Your task to perform on an android device: Open Google Chrome and click the shortcut for Amazon.com Image 0: 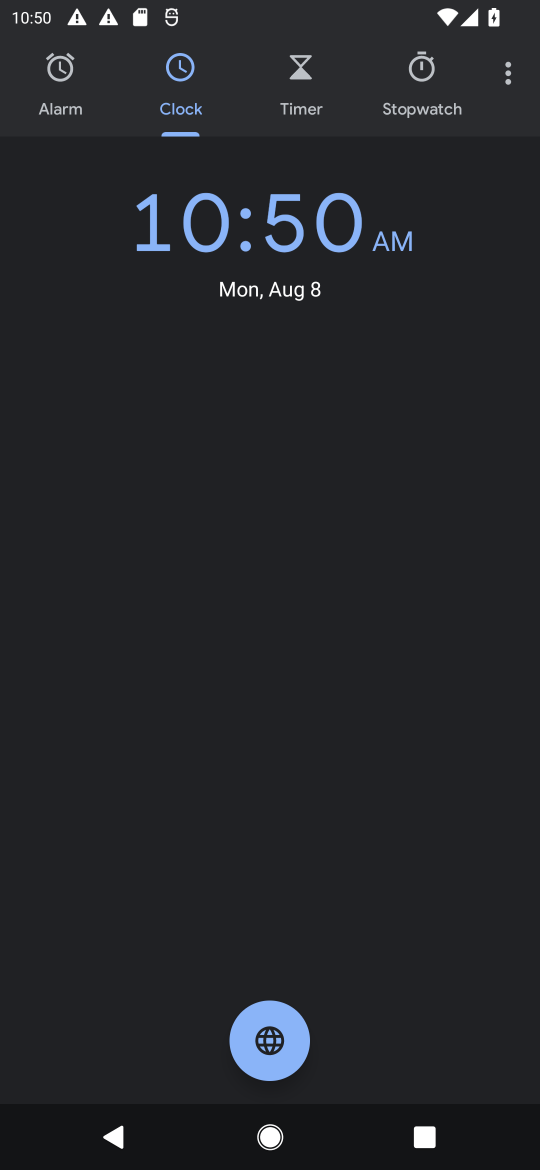
Step 0: press home button
Your task to perform on an android device: Open Google Chrome and click the shortcut for Amazon.com Image 1: 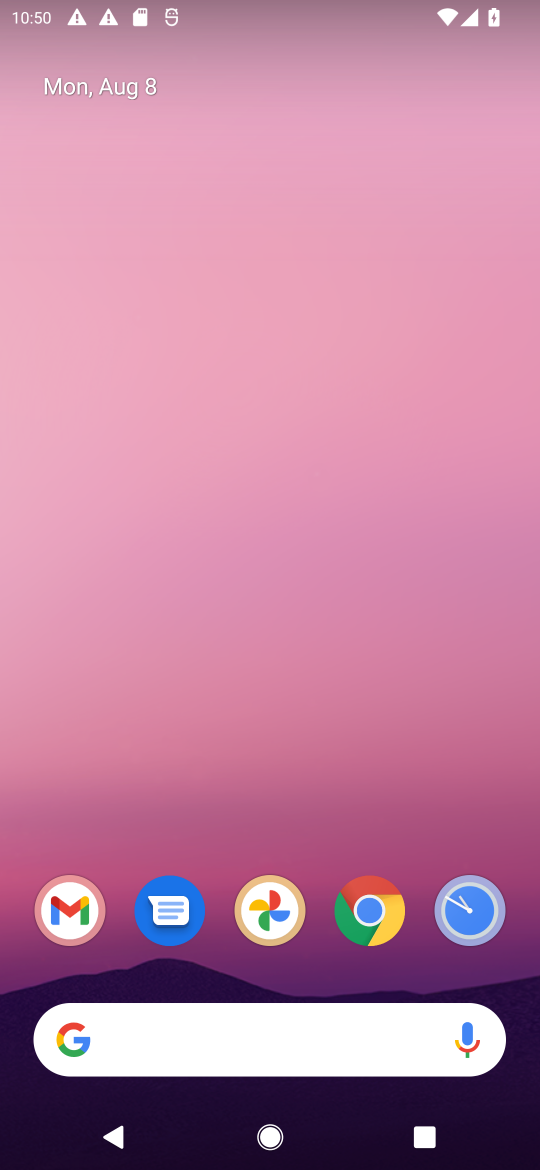
Step 1: click (391, 914)
Your task to perform on an android device: Open Google Chrome and click the shortcut for Amazon.com Image 2: 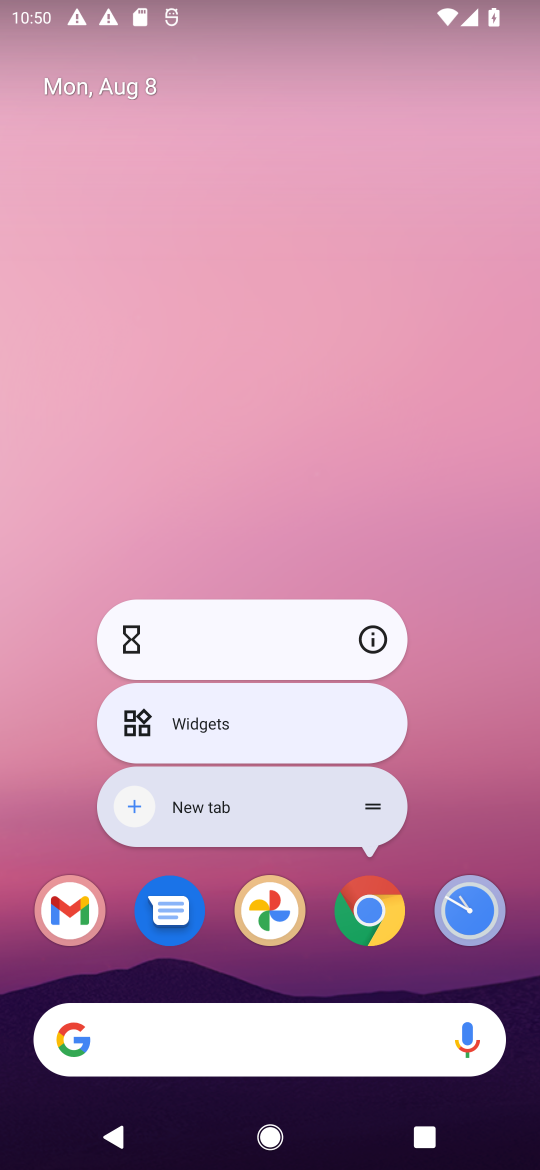
Step 2: click (391, 902)
Your task to perform on an android device: Open Google Chrome and click the shortcut for Amazon.com Image 3: 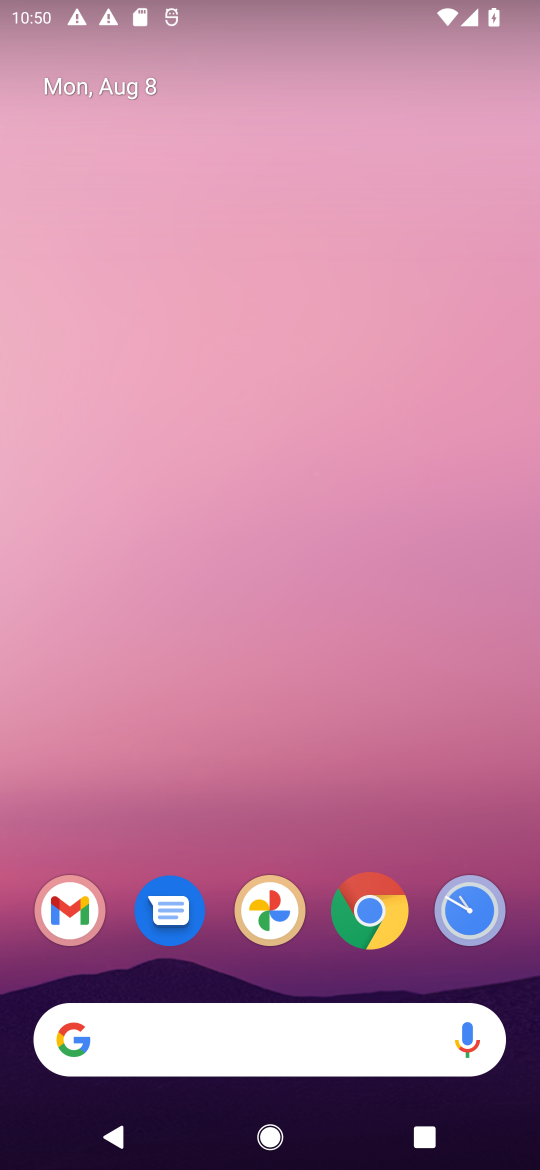
Step 3: click (388, 920)
Your task to perform on an android device: Open Google Chrome and click the shortcut for Amazon.com Image 4: 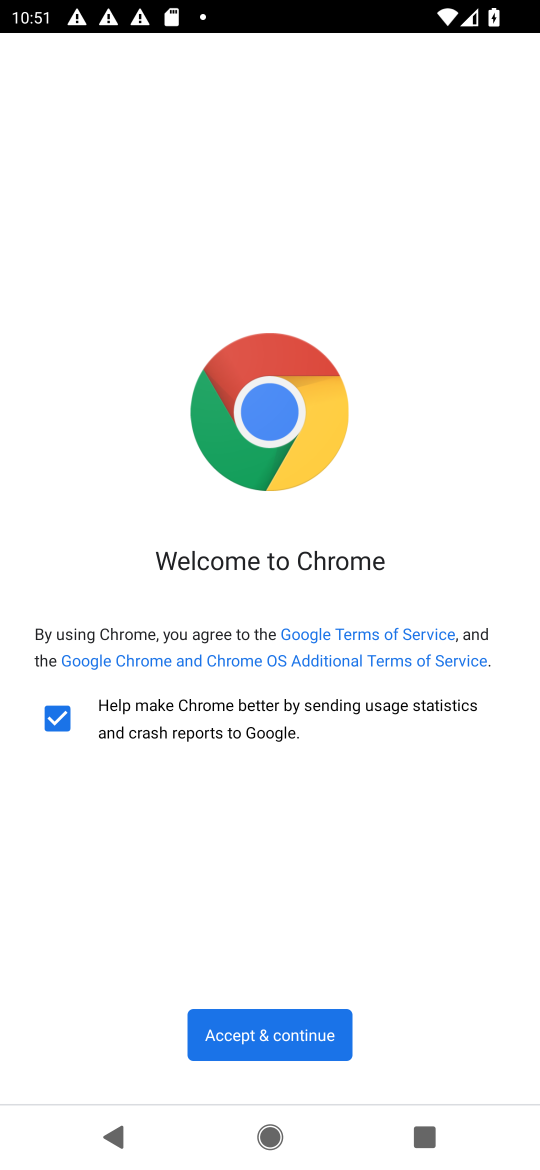
Step 4: click (315, 1053)
Your task to perform on an android device: Open Google Chrome and click the shortcut for Amazon.com Image 5: 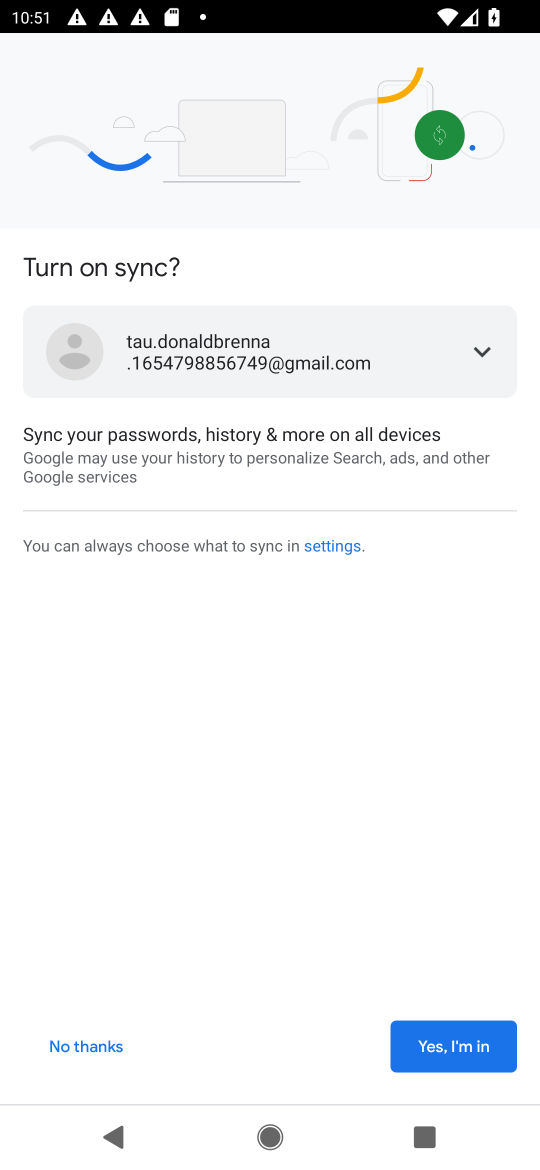
Step 5: click (418, 1049)
Your task to perform on an android device: Open Google Chrome and click the shortcut for Amazon.com Image 6: 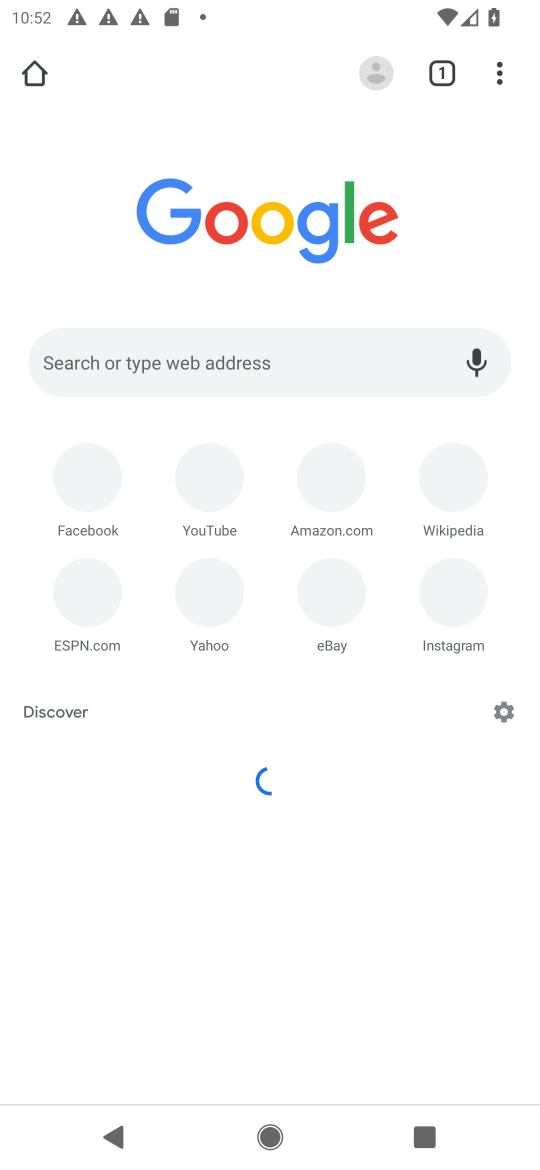
Step 6: click (318, 481)
Your task to perform on an android device: Open Google Chrome and click the shortcut for Amazon.com Image 7: 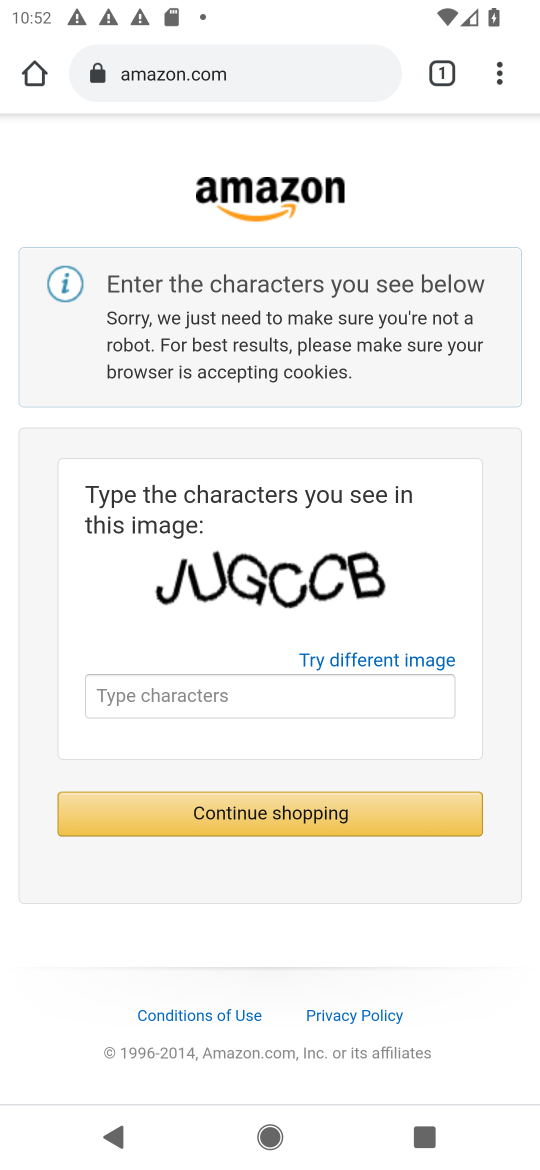
Step 7: task complete